Your task to perform on an android device: set an alarm Image 0: 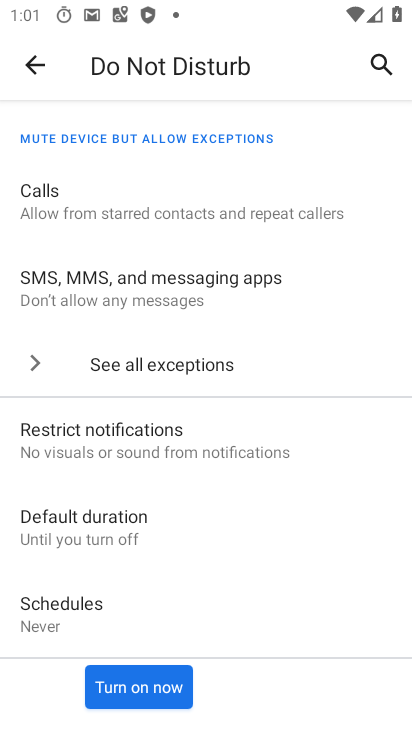
Step 0: press home button
Your task to perform on an android device: set an alarm Image 1: 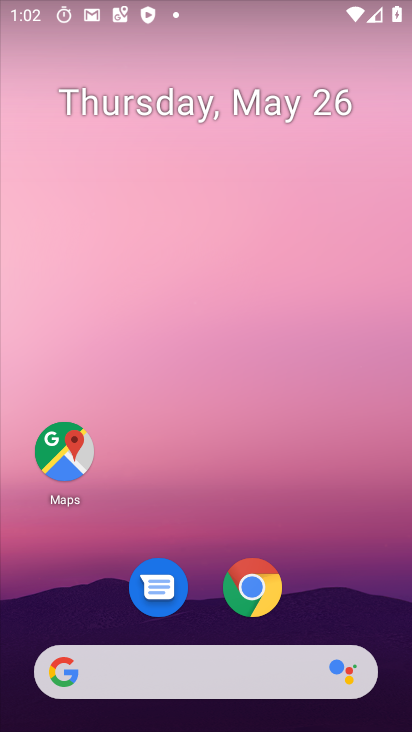
Step 1: drag from (339, 691) to (258, 97)
Your task to perform on an android device: set an alarm Image 2: 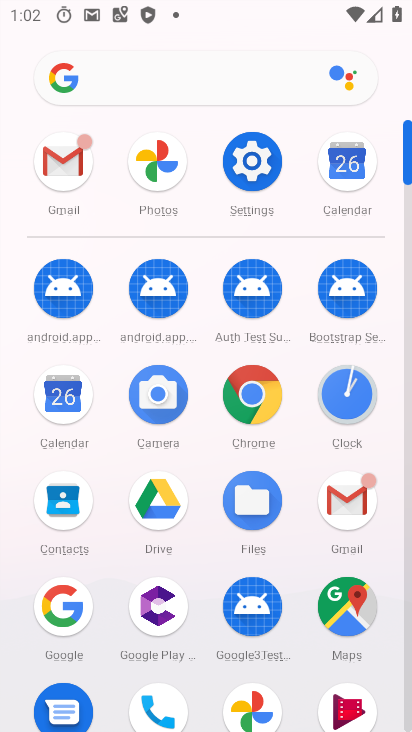
Step 2: click (342, 397)
Your task to perform on an android device: set an alarm Image 3: 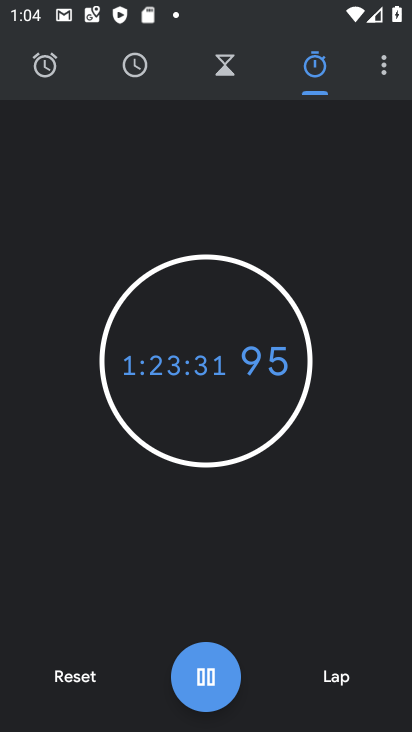
Step 3: click (55, 74)
Your task to perform on an android device: set an alarm Image 4: 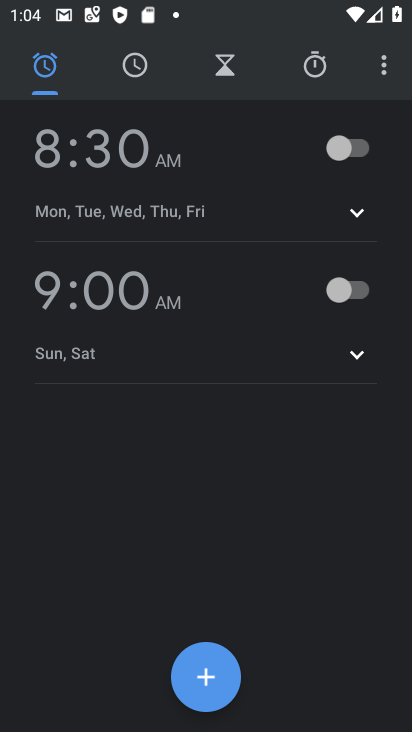
Step 4: click (360, 160)
Your task to perform on an android device: set an alarm Image 5: 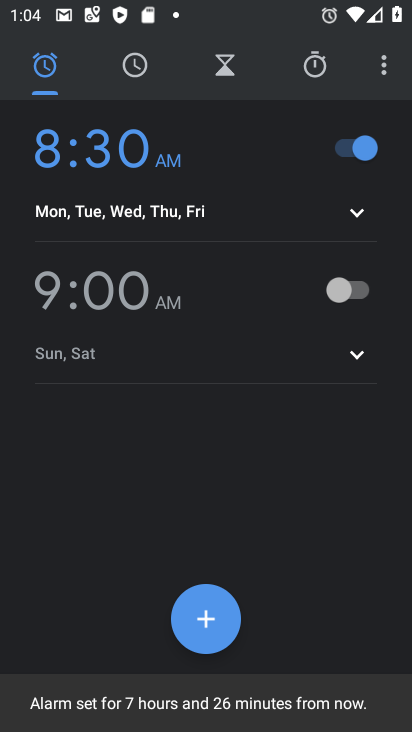
Step 5: task complete